Your task to perform on an android device: Search for razer blade on costco, select the first entry, add it to the cart, then select checkout. Image 0: 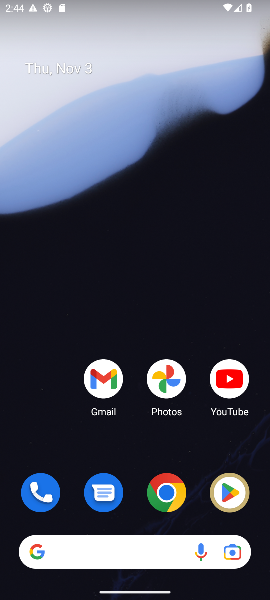
Step 0: click (172, 498)
Your task to perform on an android device: Search for razer blade on costco, select the first entry, add it to the cart, then select checkout. Image 1: 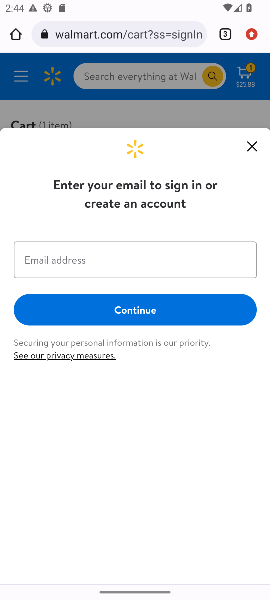
Step 1: click (101, 34)
Your task to perform on an android device: Search for razer blade on costco, select the first entry, add it to the cart, then select checkout. Image 2: 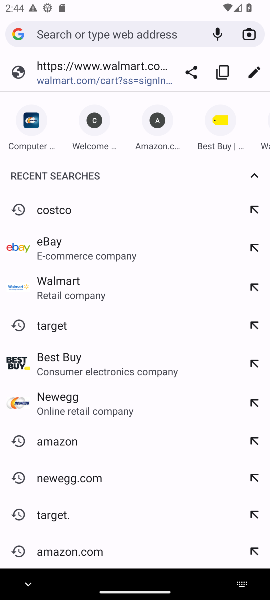
Step 2: type "costco"
Your task to perform on an android device: Search for razer blade on costco, select the first entry, add it to the cart, then select checkout. Image 3: 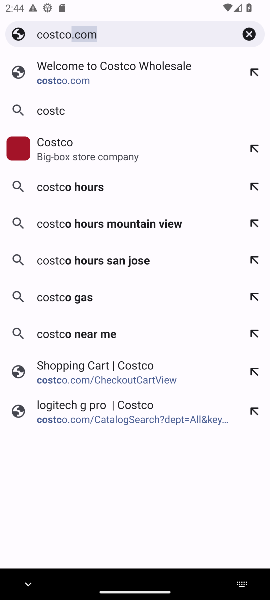
Step 3: type ""
Your task to perform on an android device: Search for razer blade on costco, select the first entry, add it to the cart, then select checkout. Image 4: 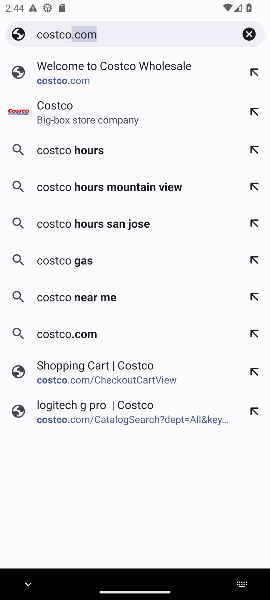
Step 4: click (83, 63)
Your task to perform on an android device: Search for razer blade on costco, select the first entry, add it to the cart, then select checkout. Image 5: 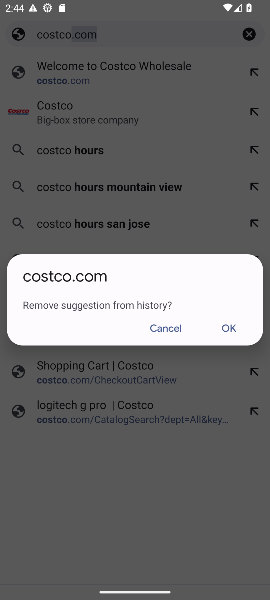
Step 5: click (218, 328)
Your task to perform on an android device: Search for razer blade on costco, select the first entry, add it to the cart, then select checkout. Image 6: 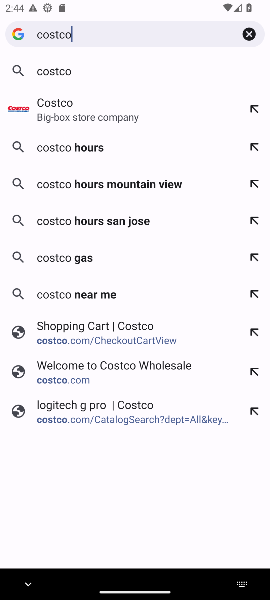
Step 6: click (61, 108)
Your task to perform on an android device: Search for razer blade on costco, select the first entry, add it to the cart, then select checkout. Image 7: 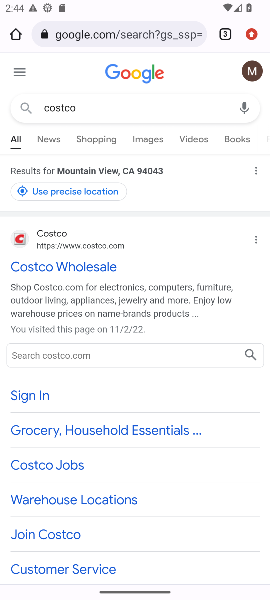
Step 7: click (57, 259)
Your task to perform on an android device: Search for razer blade on costco, select the first entry, add it to the cart, then select checkout. Image 8: 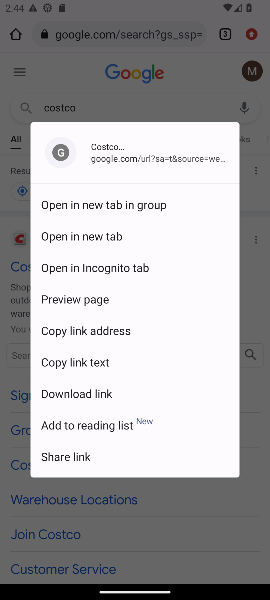
Step 8: click (83, 90)
Your task to perform on an android device: Search for razer blade on costco, select the first entry, add it to the cart, then select checkout. Image 9: 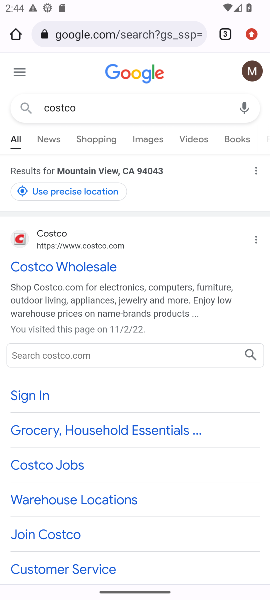
Step 9: click (35, 274)
Your task to perform on an android device: Search for razer blade on costco, select the first entry, add it to the cart, then select checkout. Image 10: 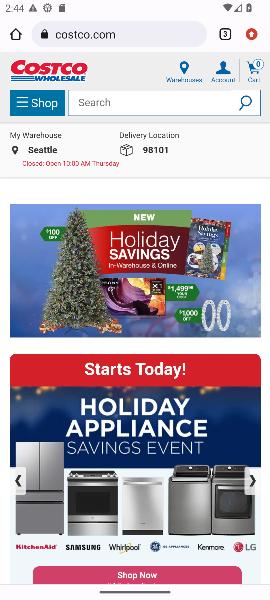
Step 10: click (92, 105)
Your task to perform on an android device: Search for razer blade on costco, select the first entry, add it to the cart, then select checkout. Image 11: 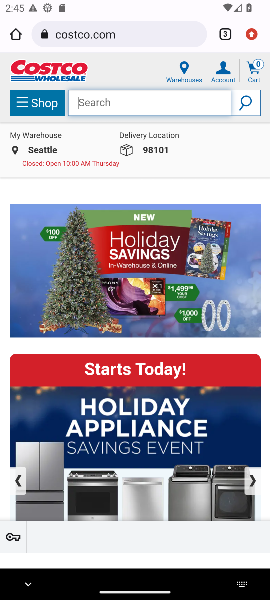
Step 11: type "razer blade"
Your task to perform on an android device: Search for razer blade on costco, select the first entry, add it to the cart, then select checkout. Image 12: 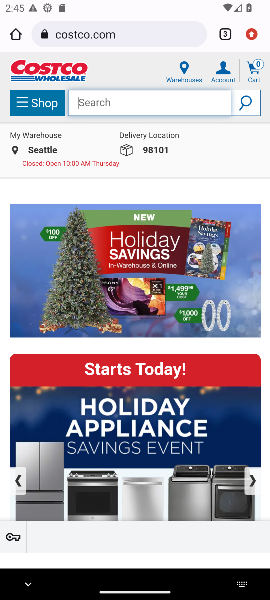
Step 12: type ""
Your task to perform on an android device: Search for razer blade on costco, select the first entry, add it to the cart, then select checkout. Image 13: 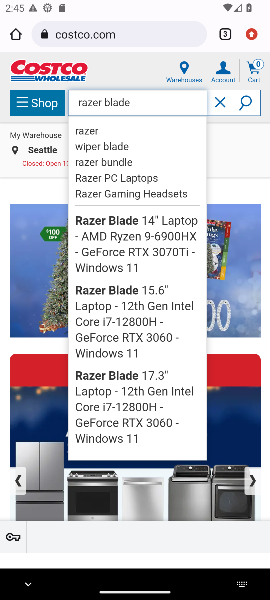
Step 13: click (252, 102)
Your task to perform on an android device: Search for razer blade on costco, select the first entry, add it to the cart, then select checkout. Image 14: 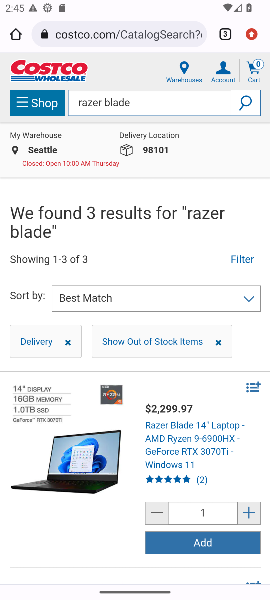
Step 14: drag from (205, 468) to (190, 345)
Your task to perform on an android device: Search for razer blade on costco, select the first entry, add it to the cart, then select checkout. Image 15: 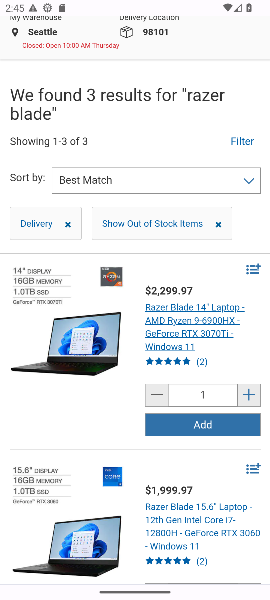
Step 15: click (182, 322)
Your task to perform on an android device: Search for razer blade on costco, select the first entry, add it to the cart, then select checkout. Image 16: 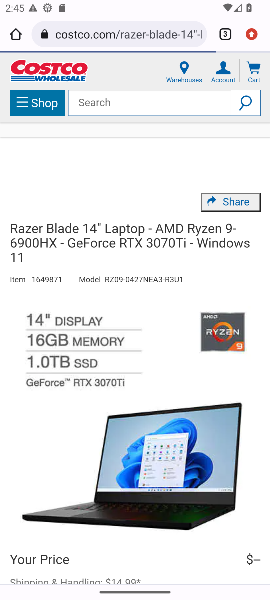
Step 16: drag from (173, 451) to (179, 206)
Your task to perform on an android device: Search for razer blade on costco, select the first entry, add it to the cart, then select checkout. Image 17: 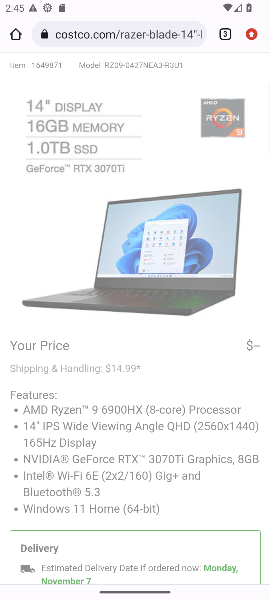
Step 17: drag from (148, 408) to (133, 155)
Your task to perform on an android device: Search for razer blade on costco, select the first entry, add it to the cart, then select checkout. Image 18: 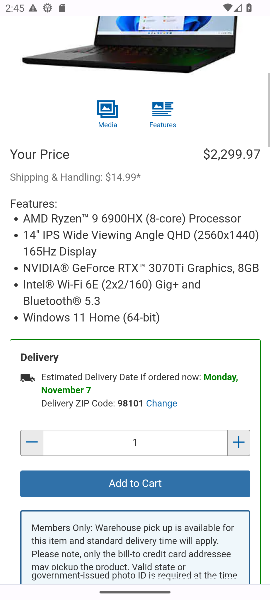
Step 18: click (164, 480)
Your task to perform on an android device: Search for razer blade on costco, select the first entry, add it to the cart, then select checkout. Image 19: 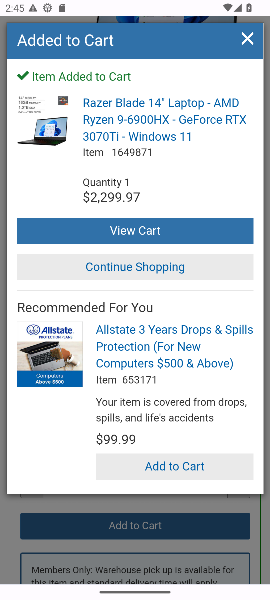
Step 19: click (148, 235)
Your task to perform on an android device: Search for razer blade on costco, select the first entry, add it to the cart, then select checkout. Image 20: 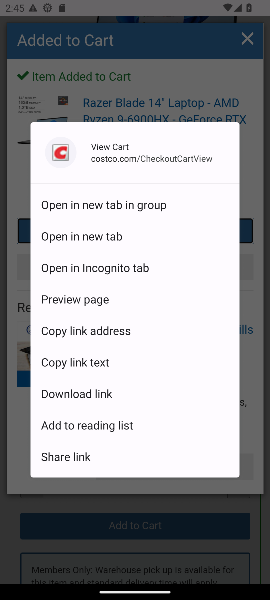
Step 20: click (242, 118)
Your task to perform on an android device: Search for razer blade on costco, select the first entry, add it to the cart, then select checkout. Image 21: 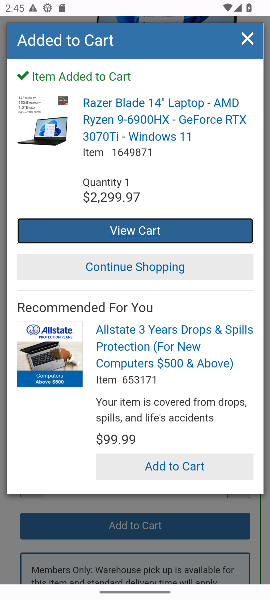
Step 21: click (119, 231)
Your task to perform on an android device: Search for razer blade on costco, select the first entry, add it to the cart, then select checkout. Image 22: 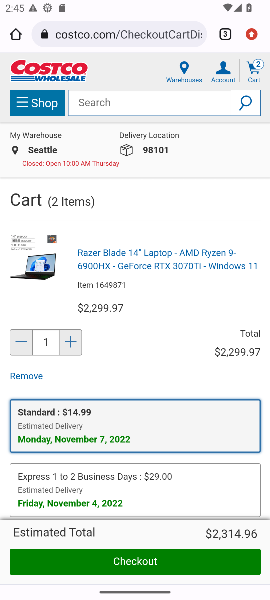
Step 22: click (174, 559)
Your task to perform on an android device: Search for razer blade on costco, select the first entry, add it to the cart, then select checkout. Image 23: 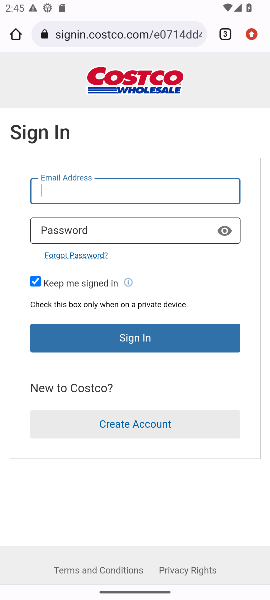
Step 23: task complete